Your task to perform on an android device: toggle pop-ups in chrome Image 0: 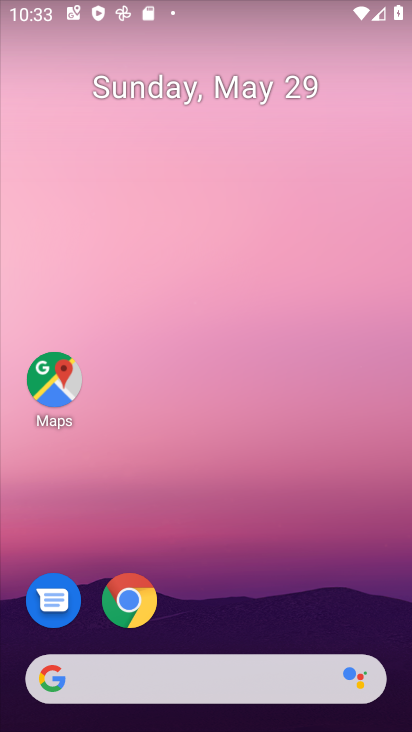
Step 0: click (128, 605)
Your task to perform on an android device: toggle pop-ups in chrome Image 1: 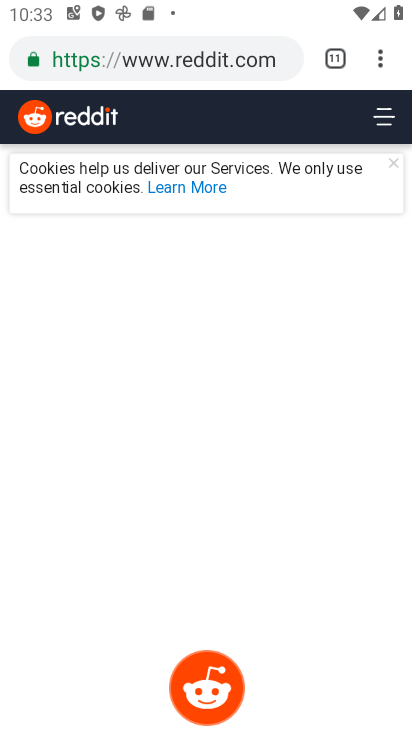
Step 1: click (379, 62)
Your task to perform on an android device: toggle pop-ups in chrome Image 2: 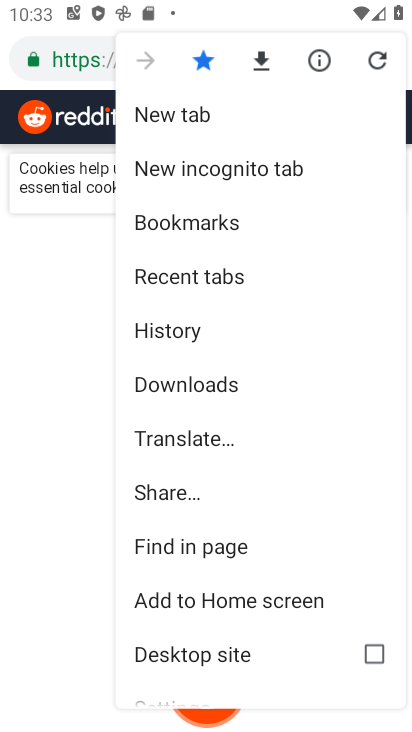
Step 2: drag from (212, 660) to (200, 283)
Your task to perform on an android device: toggle pop-ups in chrome Image 3: 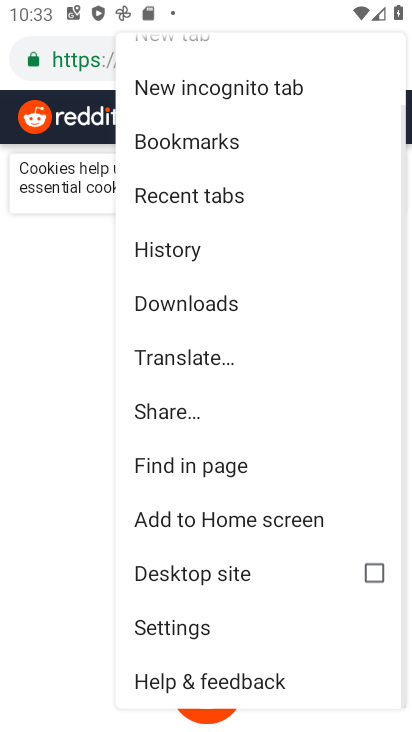
Step 3: click (176, 630)
Your task to perform on an android device: toggle pop-ups in chrome Image 4: 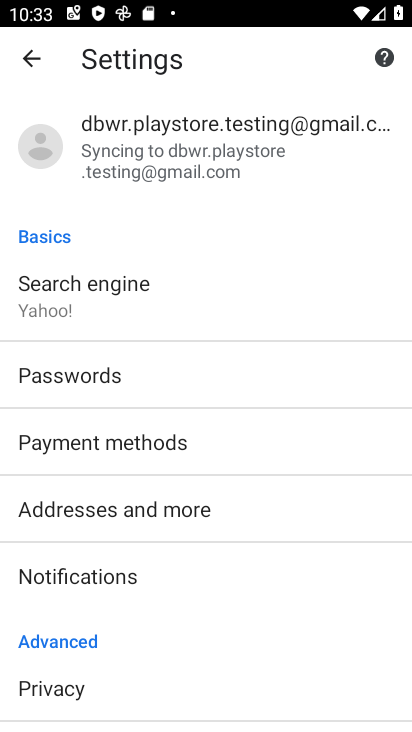
Step 4: drag from (174, 675) to (179, 201)
Your task to perform on an android device: toggle pop-ups in chrome Image 5: 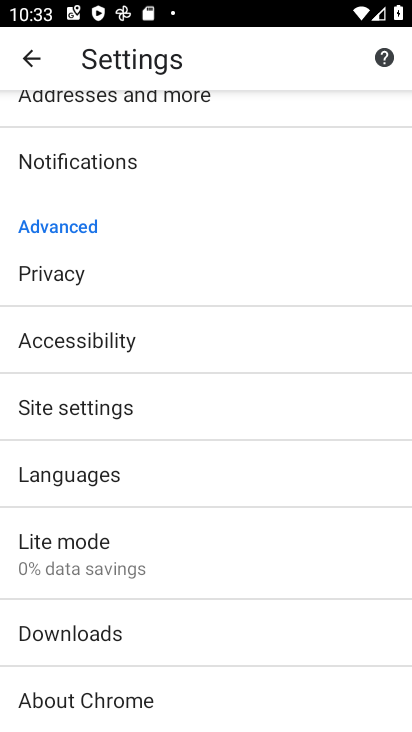
Step 5: click (92, 402)
Your task to perform on an android device: toggle pop-ups in chrome Image 6: 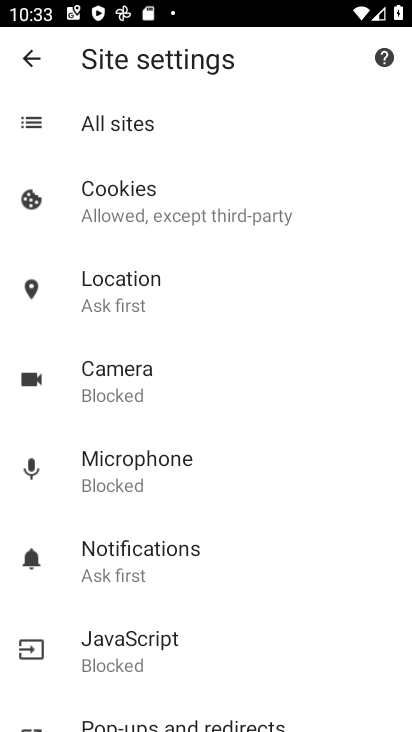
Step 6: drag from (161, 656) to (161, 357)
Your task to perform on an android device: toggle pop-ups in chrome Image 7: 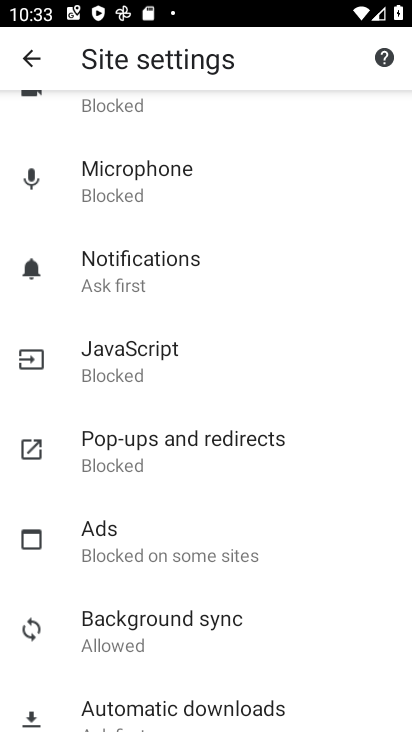
Step 7: click (114, 445)
Your task to perform on an android device: toggle pop-ups in chrome Image 8: 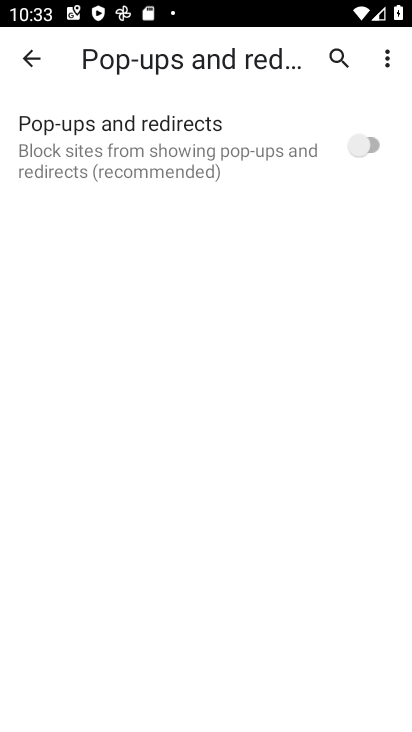
Step 8: click (374, 147)
Your task to perform on an android device: toggle pop-ups in chrome Image 9: 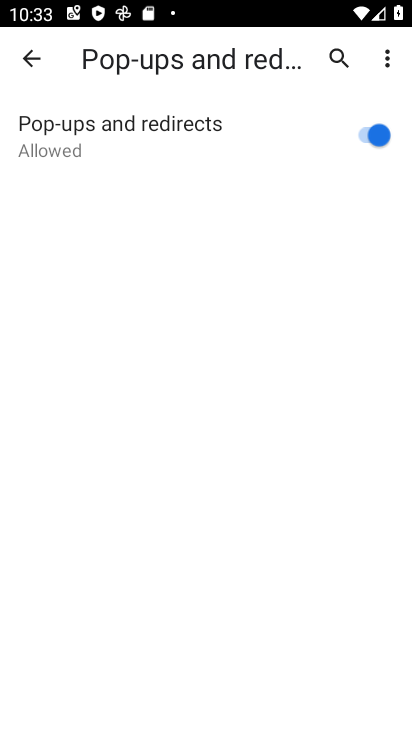
Step 9: task complete